Your task to perform on an android device: open app "Gmail" (install if not already installed) and go to login screen Image 0: 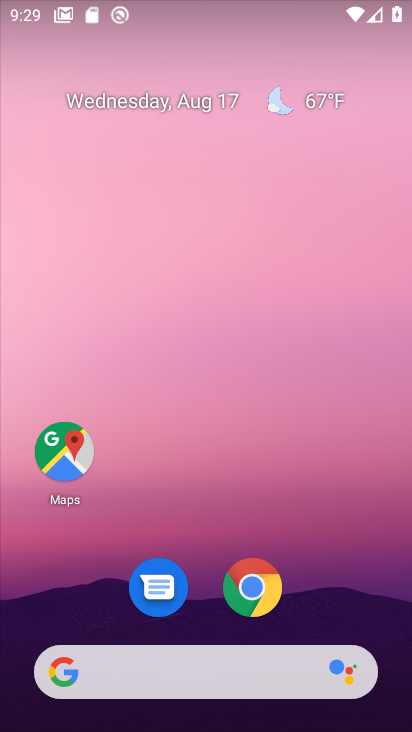
Step 0: click (218, 616)
Your task to perform on an android device: open app "Gmail" (install if not already installed) and go to login screen Image 1: 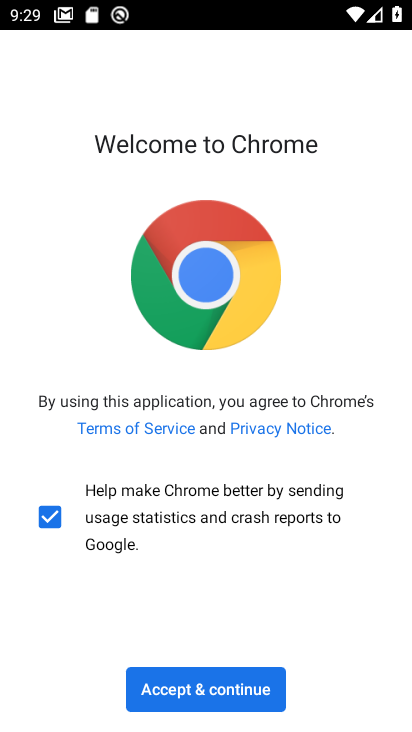
Step 1: press back button
Your task to perform on an android device: open app "Gmail" (install if not already installed) and go to login screen Image 2: 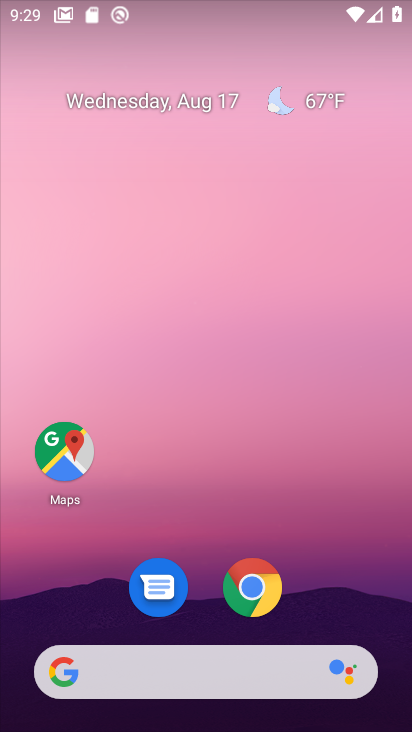
Step 2: drag from (205, 624) to (224, 274)
Your task to perform on an android device: open app "Gmail" (install if not already installed) and go to login screen Image 3: 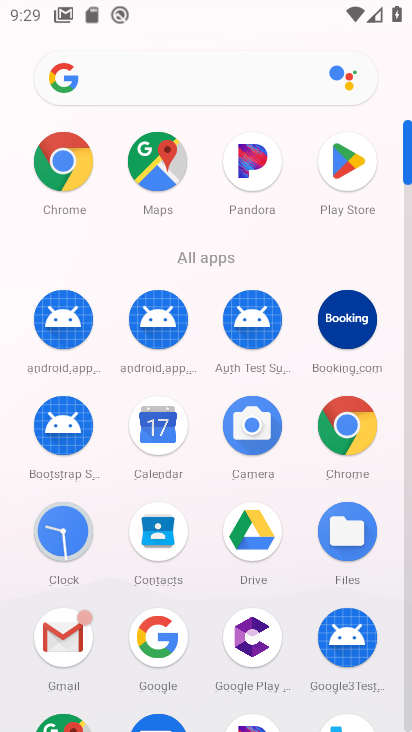
Step 3: click (336, 171)
Your task to perform on an android device: open app "Gmail" (install if not already installed) and go to login screen Image 4: 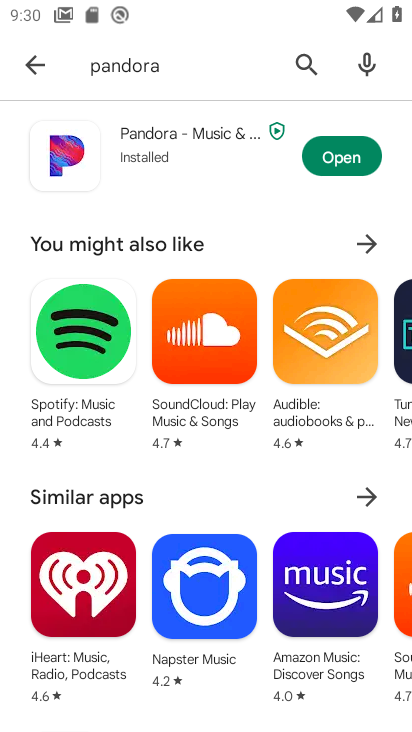
Step 4: click (26, 62)
Your task to perform on an android device: open app "Gmail" (install if not already installed) and go to login screen Image 5: 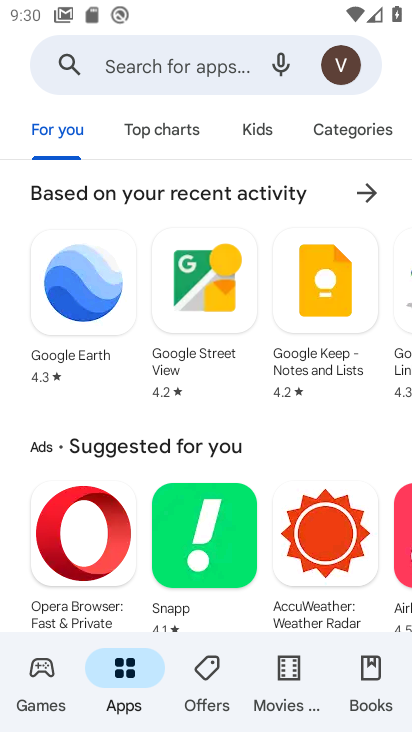
Step 5: click (197, 71)
Your task to perform on an android device: open app "Gmail" (install if not already installed) and go to login screen Image 6: 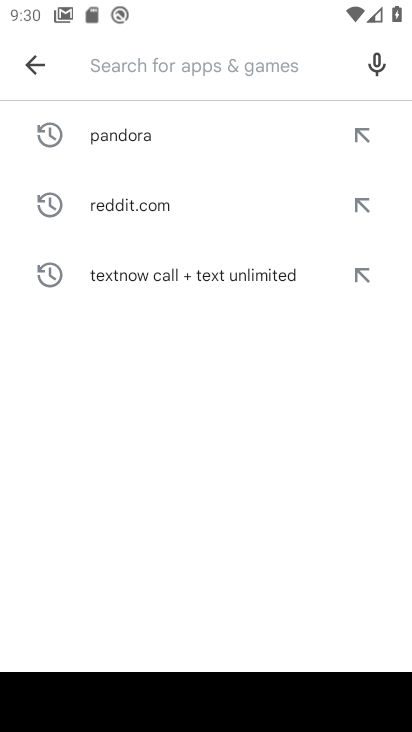
Step 6: type "Gmail"
Your task to perform on an android device: open app "Gmail" (install if not already installed) and go to login screen Image 7: 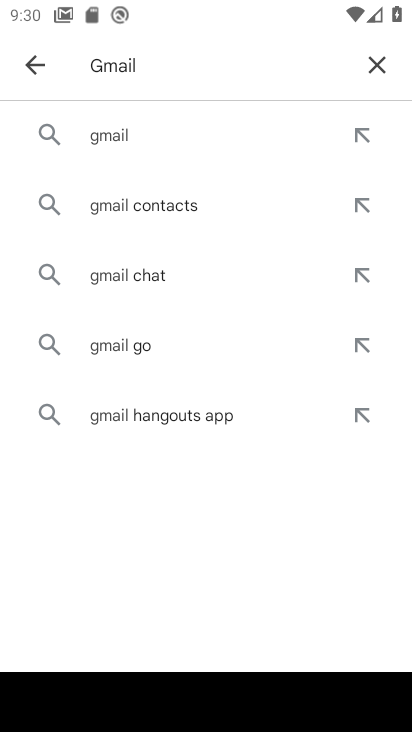
Step 7: click (117, 140)
Your task to perform on an android device: open app "Gmail" (install if not already installed) and go to login screen Image 8: 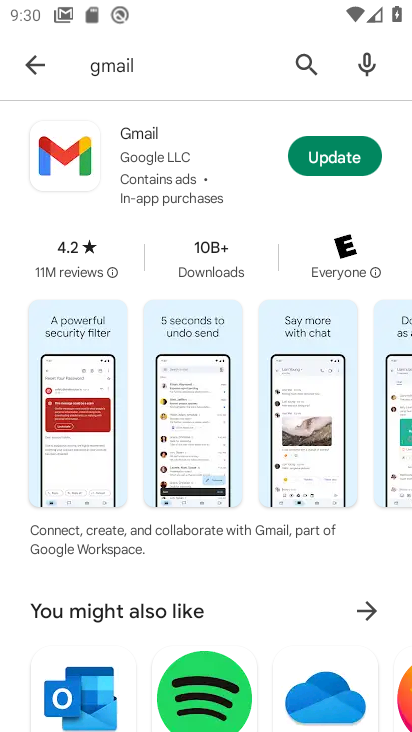
Step 8: click (318, 155)
Your task to perform on an android device: open app "Gmail" (install if not already installed) and go to login screen Image 9: 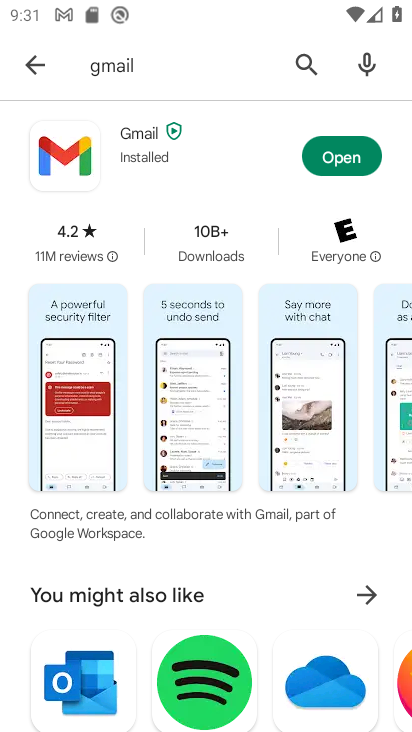
Step 9: click (318, 155)
Your task to perform on an android device: open app "Gmail" (install if not already installed) and go to login screen Image 10: 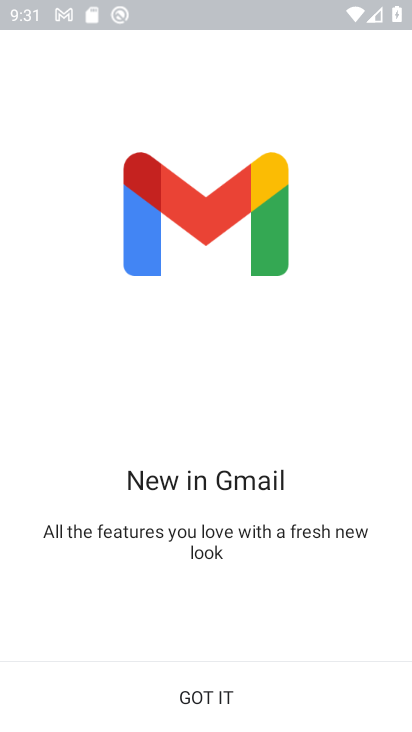
Step 10: click (210, 703)
Your task to perform on an android device: open app "Gmail" (install if not already installed) and go to login screen Image 11: 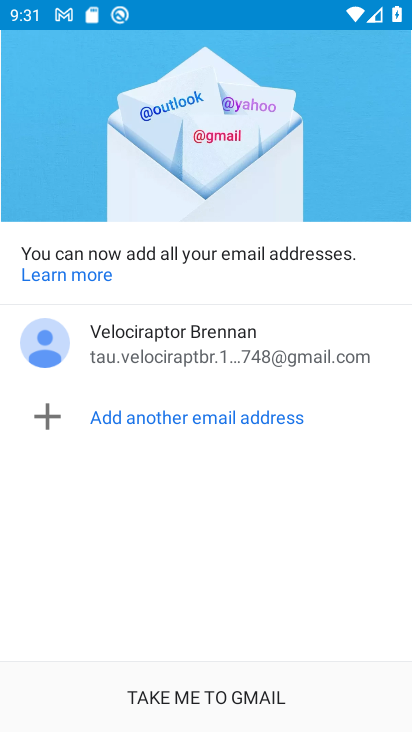
Step 11: click (210, 703)
Your task to perform on an android device: open app "Gmail" (install if not already installed) and go to login screen Image 12: 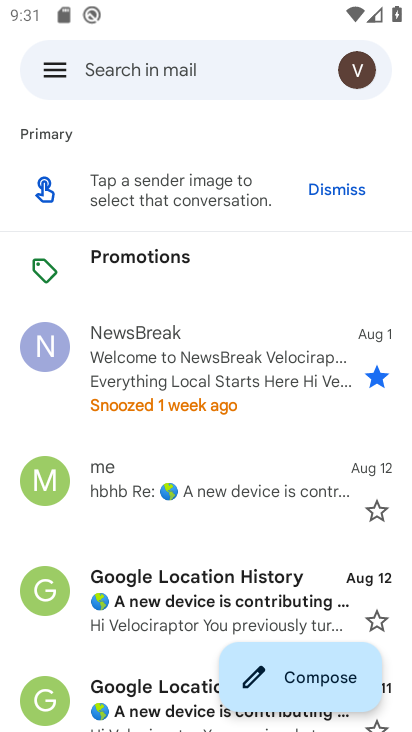
Step 12: task complete